Your task to perform on an android device: Search for vegetarian restaurants on Maps Image 0: 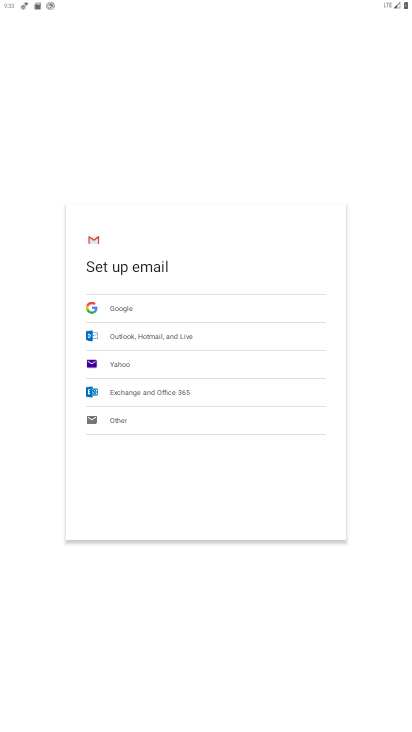
Step 0: press home button
Your task to perform on an android device: Search for vegetarian restaurants on Maps Image 1: 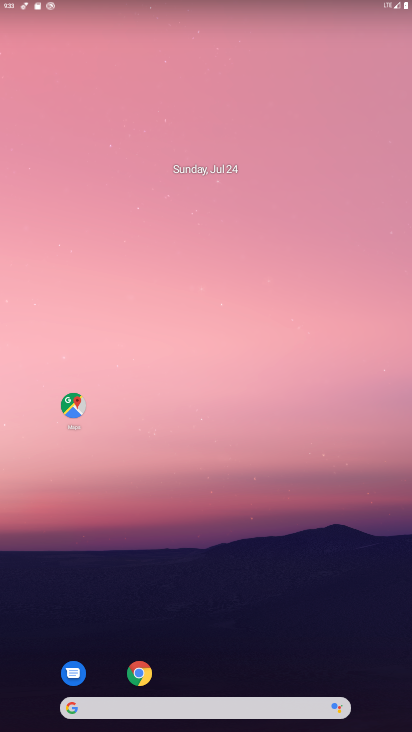
Step 1: click (86, 397)
Your task to perform on an android device: Search for vegetarian restaurants on Maps Image 2: 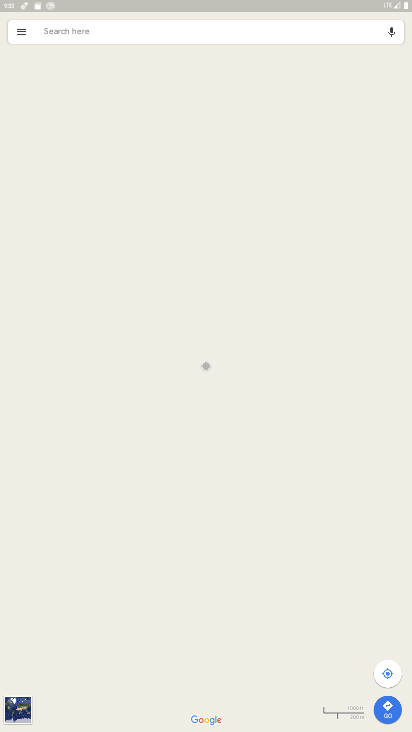
Step 2: click (140, 27)
Your task to perform on an android device: Search for vegetarian restaurants on Maps Image 3: 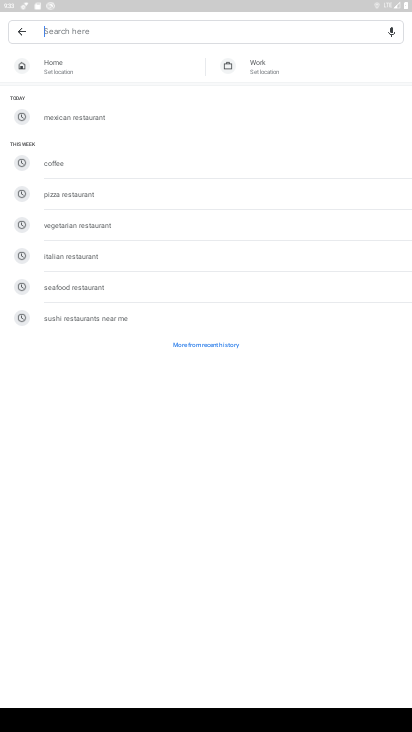
Step 3: type "vegetarian restaurants"
Your task to perform on an android device: Search for vegetarian restaurants on Maps Image 4: 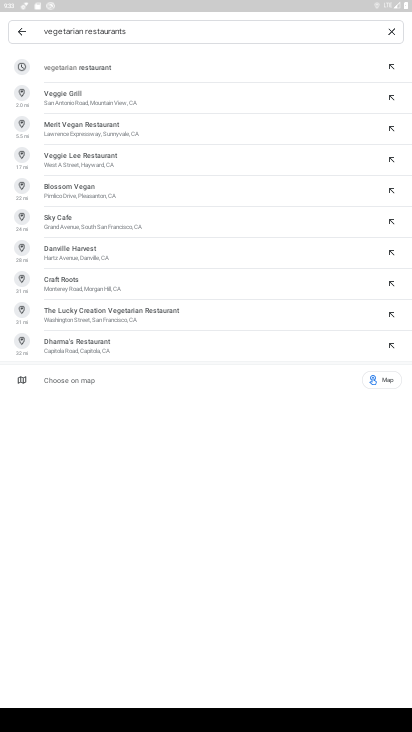
Step 4: click (117, 65)
Your task to perform on an android device: Search for vegetarian restaurants on Maps Image 5: 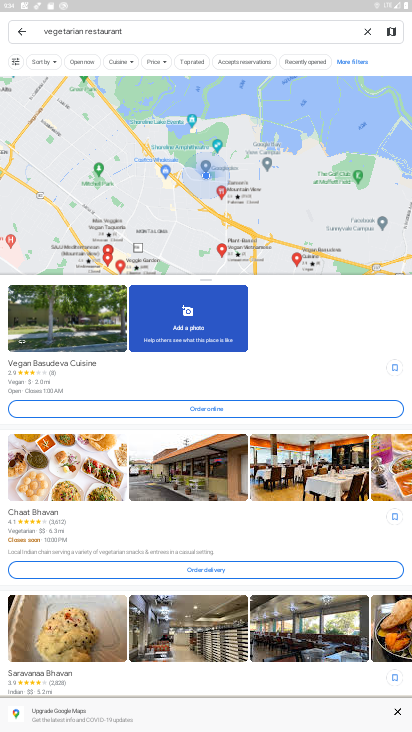
Step 5: task complete